Your task to perform on an android device: Open Yahoo.com Image 0: 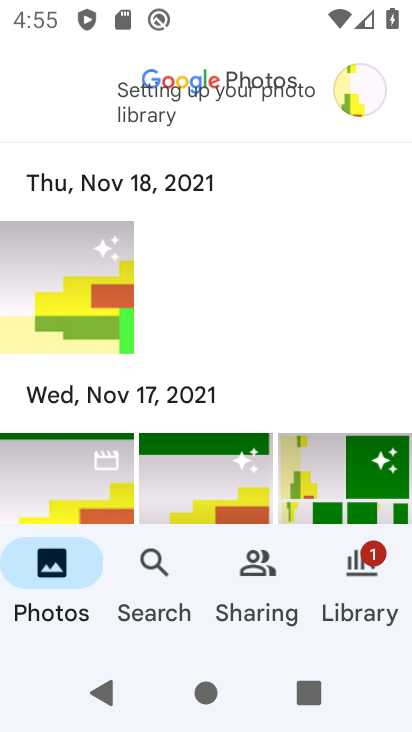
Step 0: press home button
Your task to perform on an android device: Open Yahoo.com Image 1: 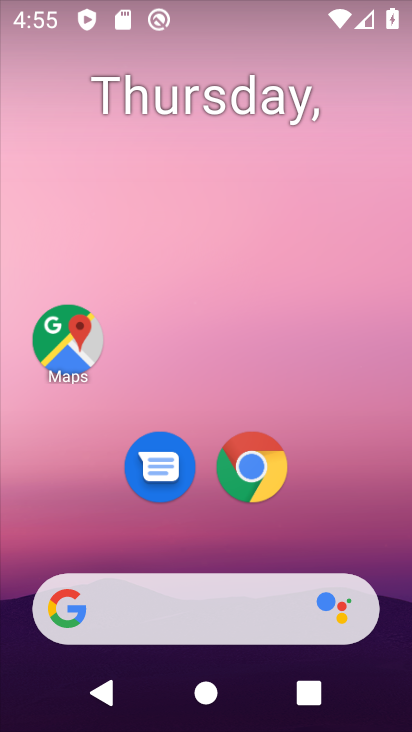
Step 1: drag from (371, 510) to (209, 54)
Your task to perform on an android device: Open Yahoo.com Image 2: 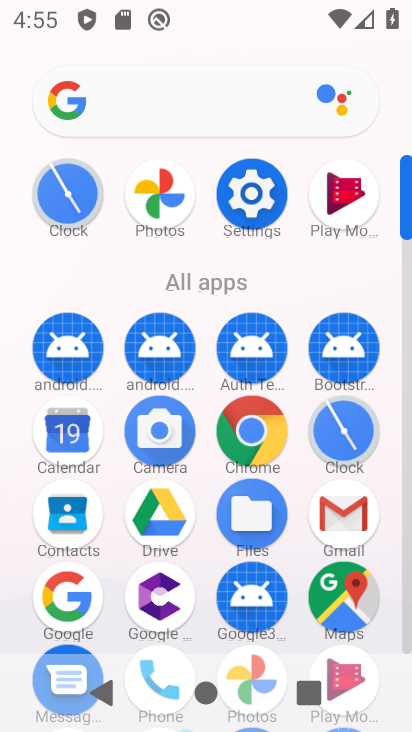
Step 2: click (274, 449)
Your task to perform on an android device: Open Yahoo.com Image 3: 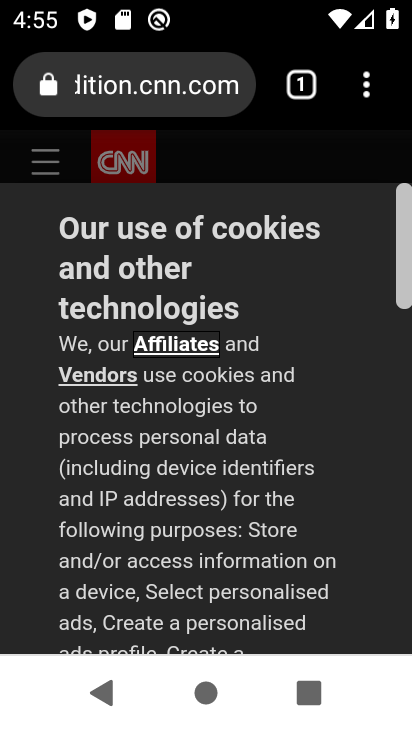
Step 3: click (176, 102)
Your task to perform on an android device: Open Yahoo.com Image 4: 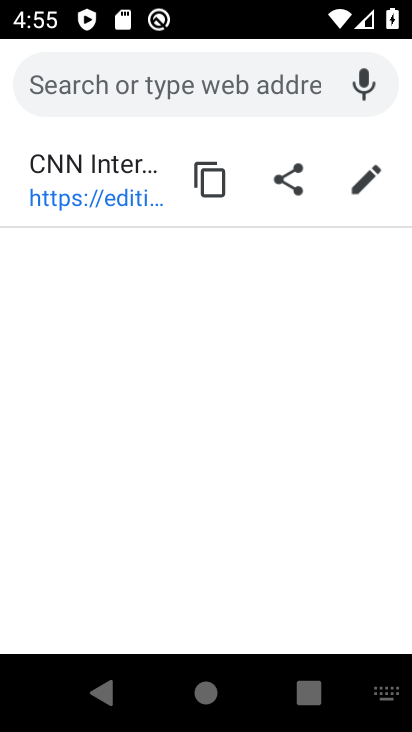
Step 4: type "yahoo.com"
Your task to perform on an android device: Open Yahoo.com Image 5: 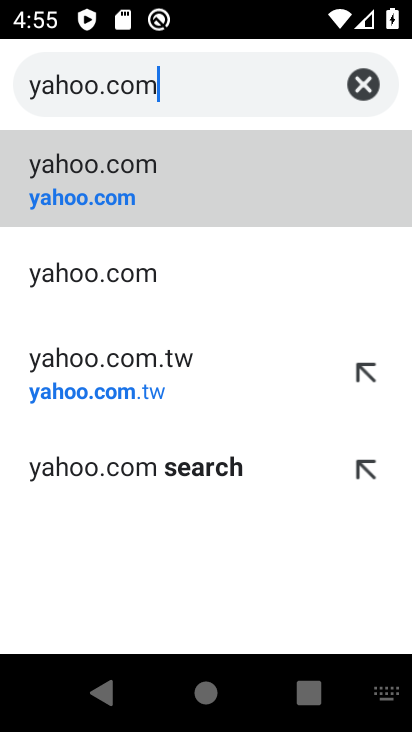
Step 5: click (110, 201)
Your task to perform on an android device: Open Yahoo.com Image 6: 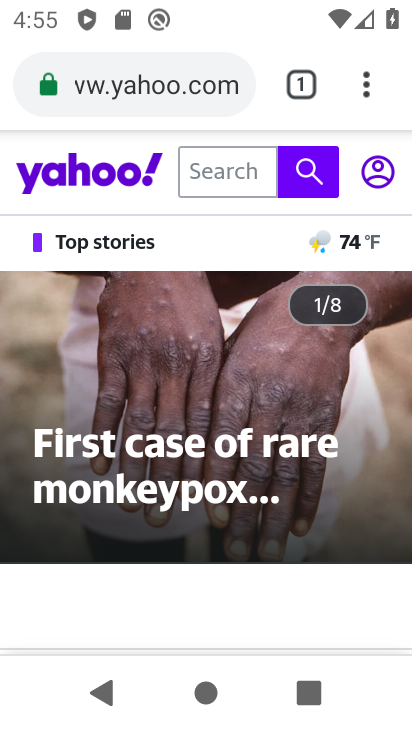
Step 6: task complete